Your task to perform on an android device: open chrome and create a bookmark for the current page Image 0: 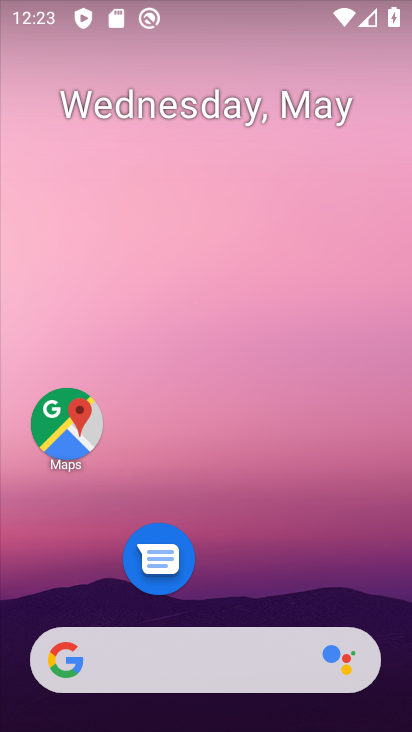
Step 0: drag from (212, 440) to (228, 5)
Your task to perform on an android device: open chrome and create a bookmark for the current page Image 1: 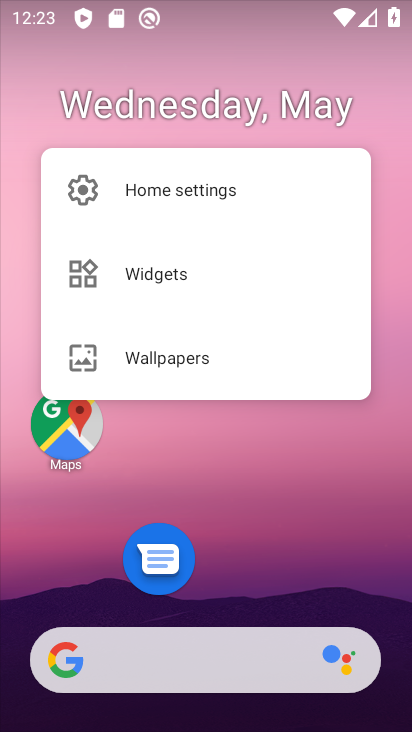
Step 1: click (249, 601)
Your task to perform on an android device: open chrome and create a bookmark for the current page Image 2: 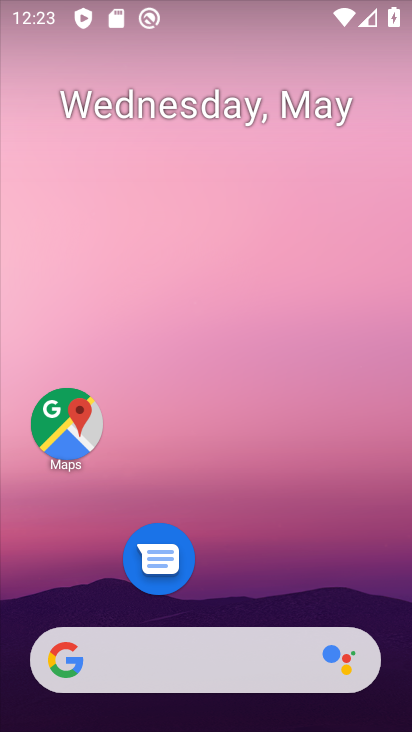
Step 2: drag from (249, 601) to (337, 0)
Your task to perform on an android device: open chrome and create a bookmark for the current page Image 3: 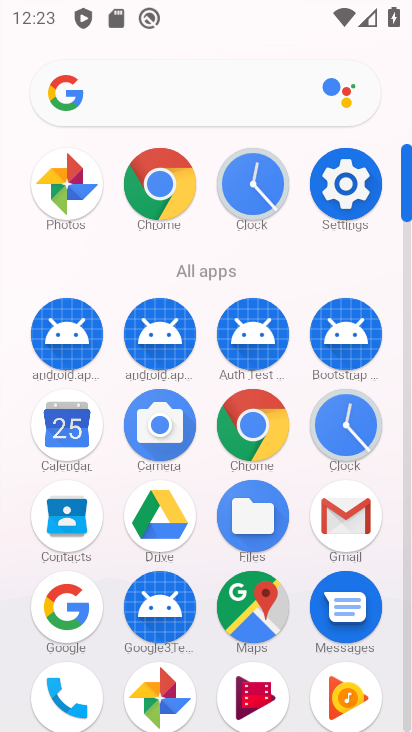
Step 3: click (161, 173)
Your task to perform on an android device: open chrome and create a bookmark for the current page Image 4: 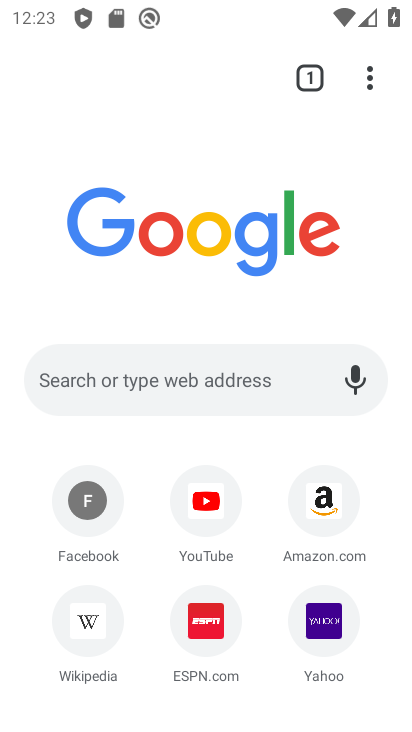
Step 4: click (377, 69)
Your task to perform on an android device: open chrome and create a bookmark for the current page Image 5: 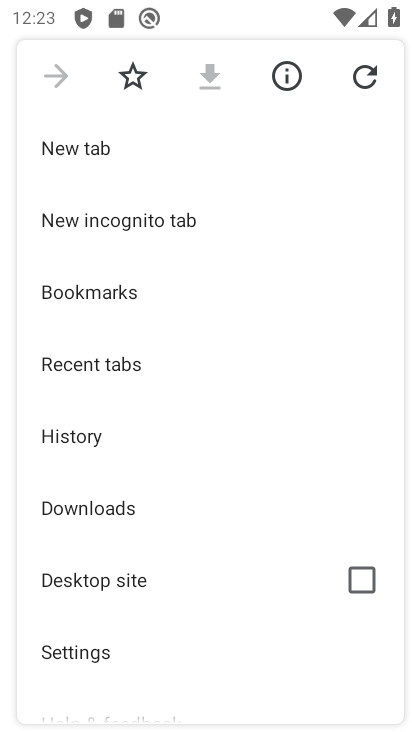
Step 5: click (145, 71)
Your task to perform on an android device: open chrome and create a bookmark for the current page Image 6: 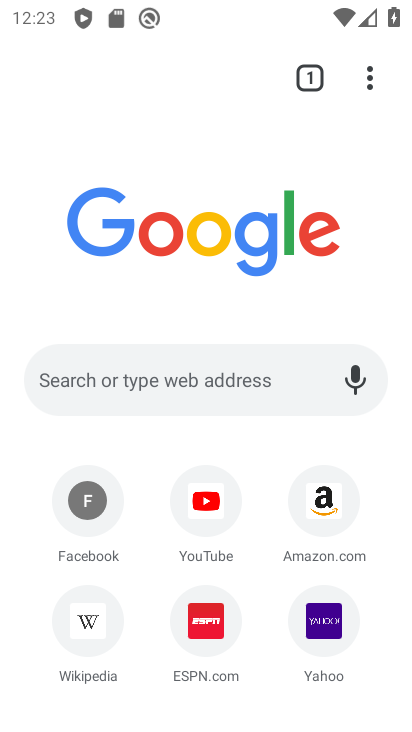
Step 6: click (364, 80)
Your task to perform on an android device: open chrome and create a bookmark for the current page Image 7: 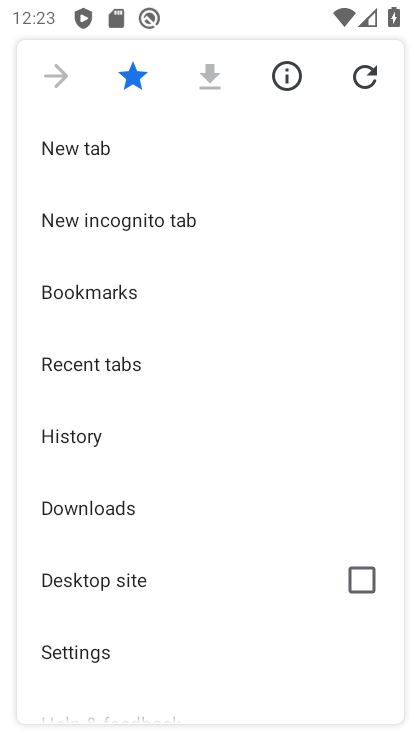
Step 7: task complete